Your task to perform on an android device: turn off smart reply in the gmail app Image 0: 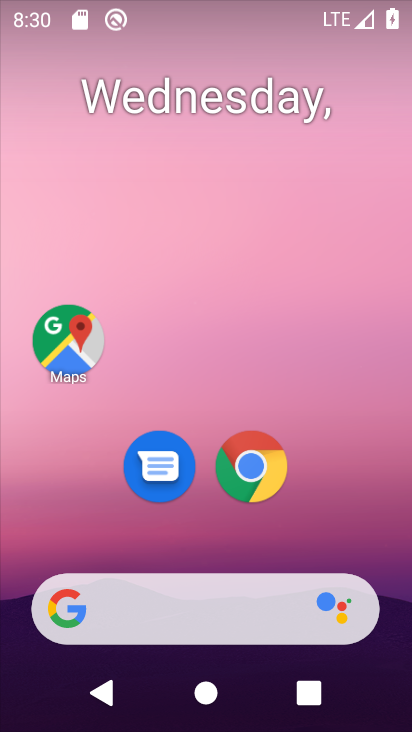
Step 0: drag from (248, 727) to (198, 198)
Your task to perform on an android device: turn off smart reply in the gmail app Image 1: 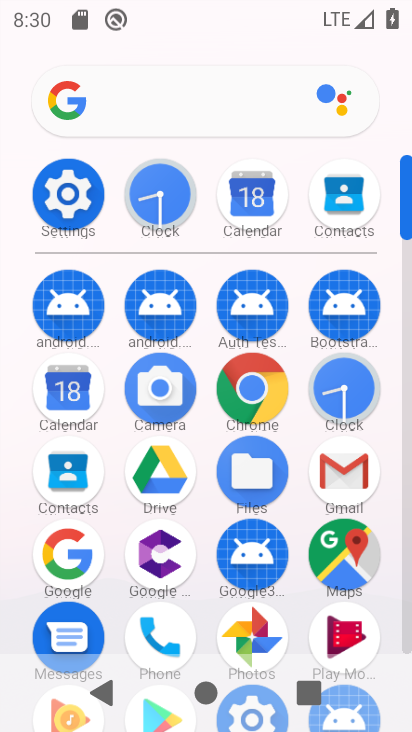
Step 1: click (344, 475)
Your task to perform on an android device: turn off smart reply in the gmail app Image 2: 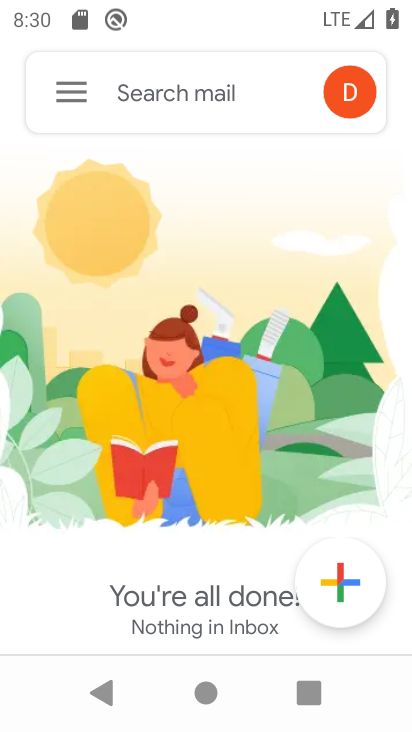
Step 2: click (70, 101)
Your task to perform on an android device: turn off smart reply in the gmail app Image 3: 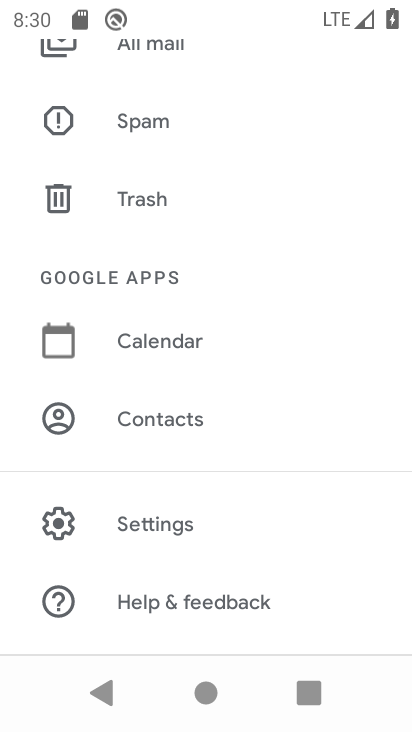
Step 3: click (156, 525)
Your task to perform on an android device: turn off smart reply in the gmail app Image 4: 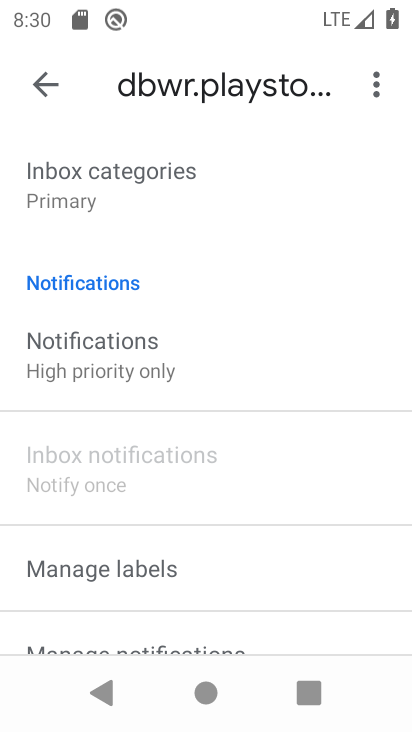
Step 4: drag from (116, 617) to (121, 227)
Your task to perform on an android device: turn off smart reply in the gmail app Image 5: 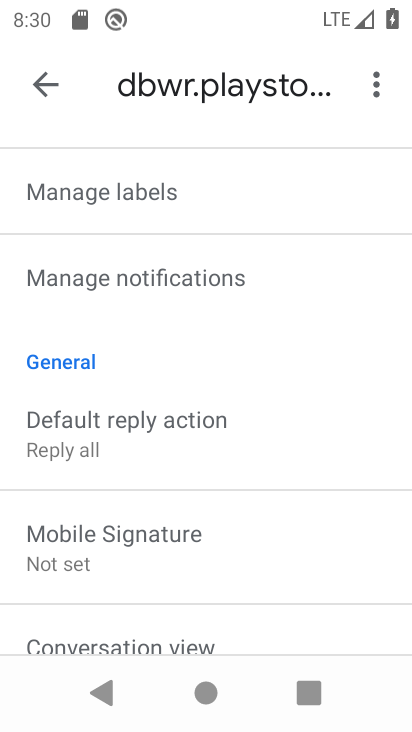
Step 5: drag from (117, 591) to (117, 282)
Your task to perform on an android device: turn off smart reply in the gmail app Image 6: 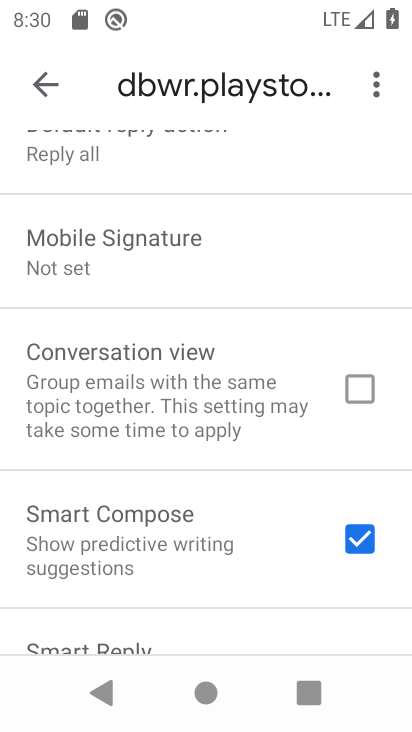
Step 6: drag from (138, 577) to (128, 311)
Your task to perform on an android device: turn off smart reply in the gmail app Image 7: 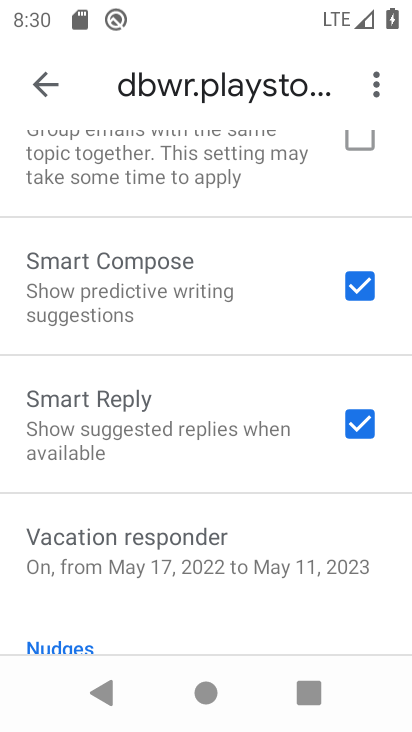
Step 7: click (368, 421)
Your task to perform on an android device: turn off smart reply in the gmail app Image 8: 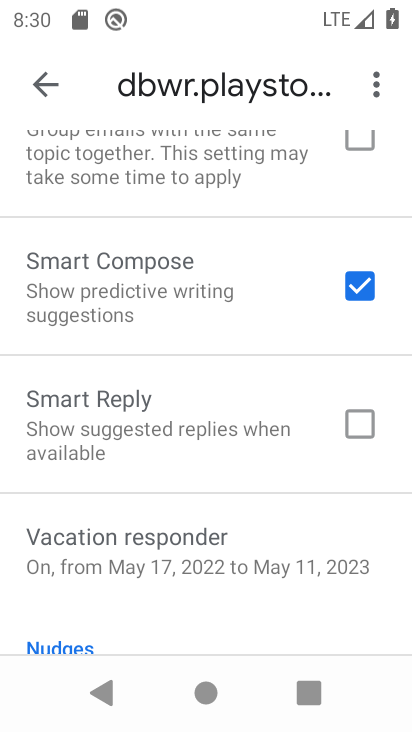
Step 8: task complete